Your task to perform on an android device: Check the news Image 0: 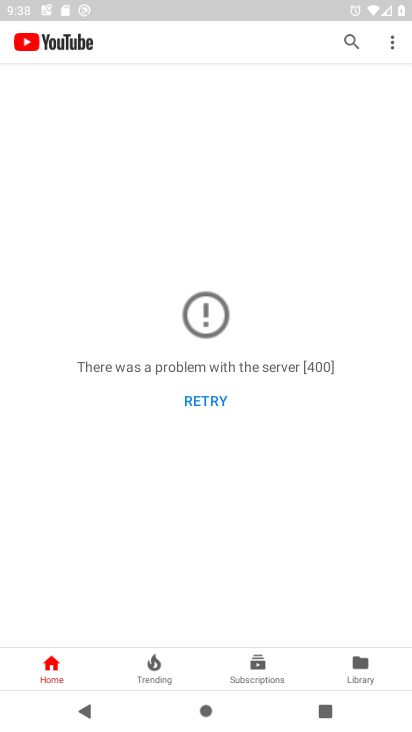
Step 0: press home button
Your task to perform on an android device: Check the news Image 1: 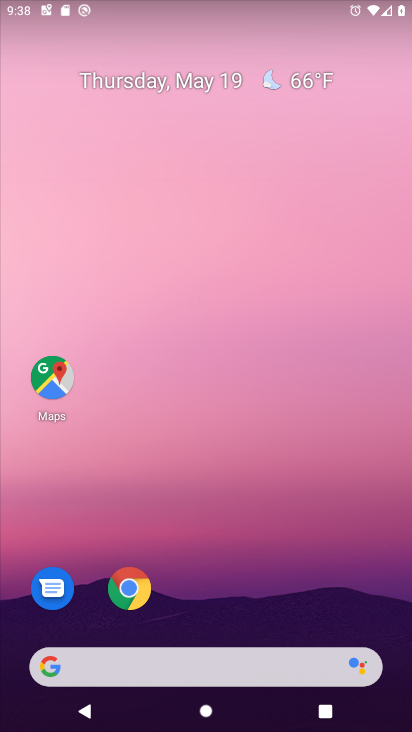
Step 1: task complete